Your task to perform on an android device: Open notification settings Image 0: 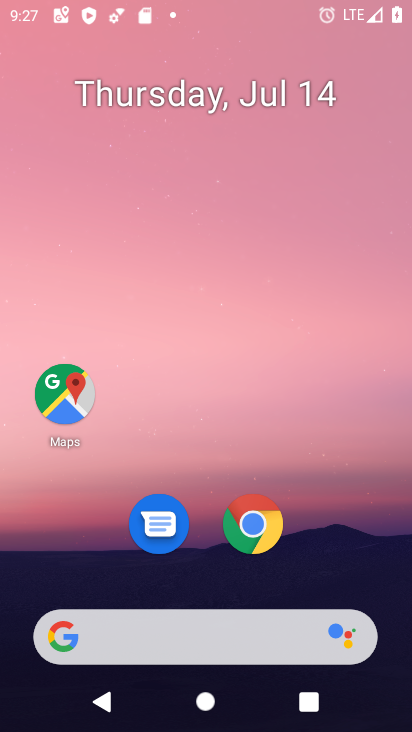
Step 0: drag from (260, 389) to (280, 150)
Your task to perform on an android device: Open notification settings Image 1: 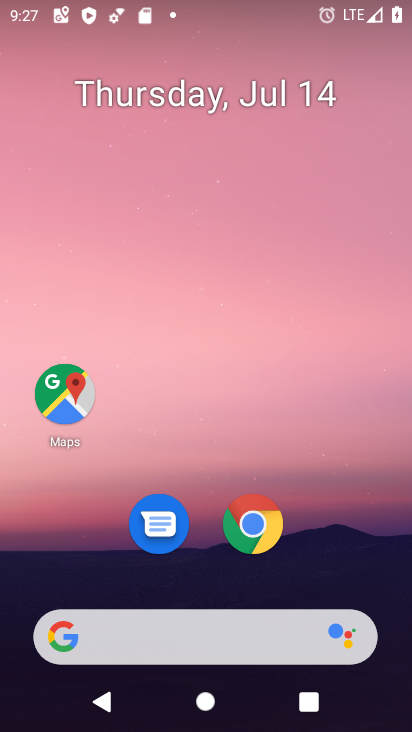
Step 1: drag from (201, 454) to (229, 33)
Your task to perform on an android device: Open notification settings Image 2: 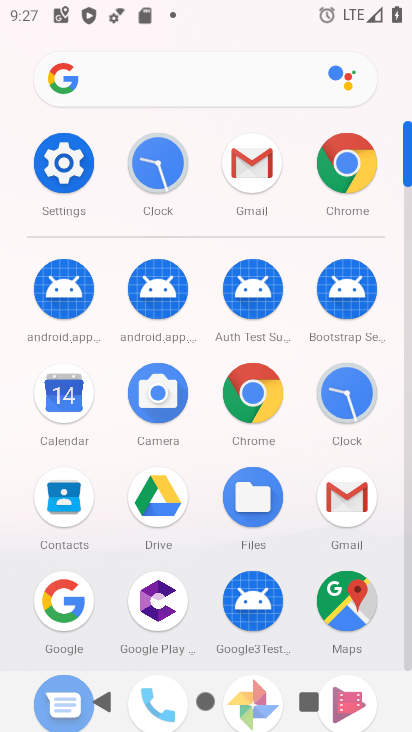
Step 2: click (69, 168)
Your task to perform on an android device: Open notification settings Image 3: 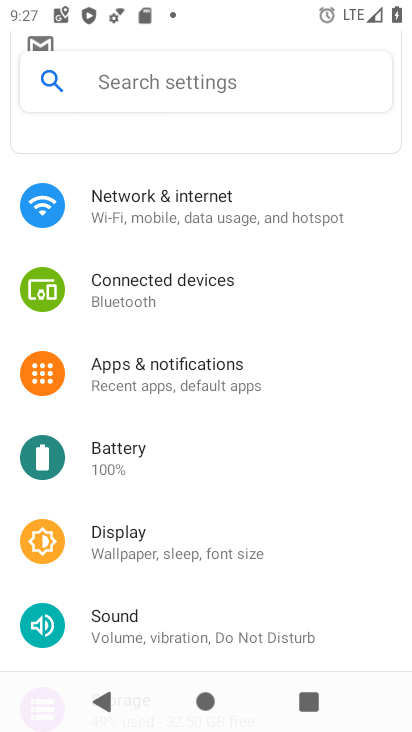
Step 3: click (190, 367)
Your task to perform on an android device: Open notification settings Image 4: 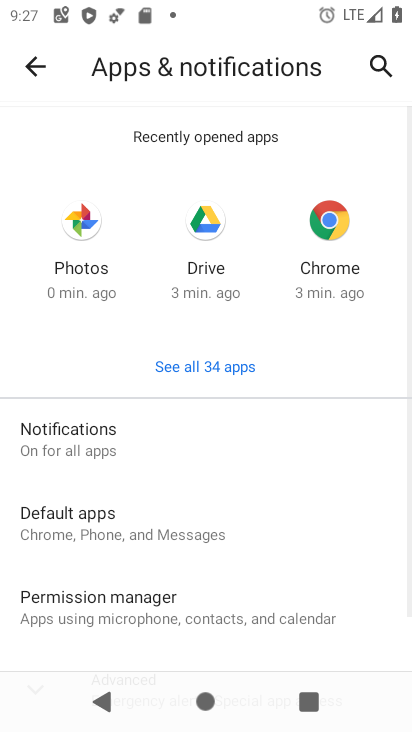
Step 4: click (94, 452)
Your task to perform on an android device: Open notification settings Image 5: 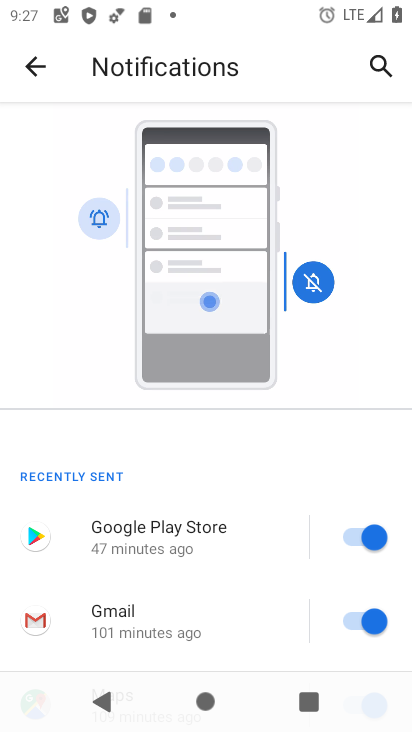
Step 5: task complete